Your task to perform on an android device: Open accessibility settings Image 0: 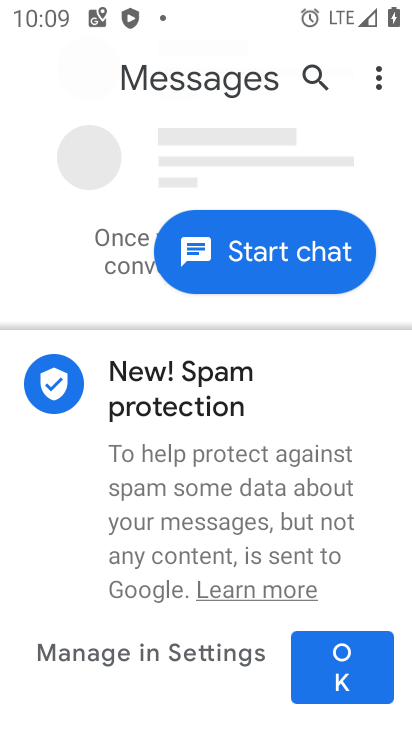
Step 0: press home button
Your task to perform on an android device: Open accessibility settings Image 1: 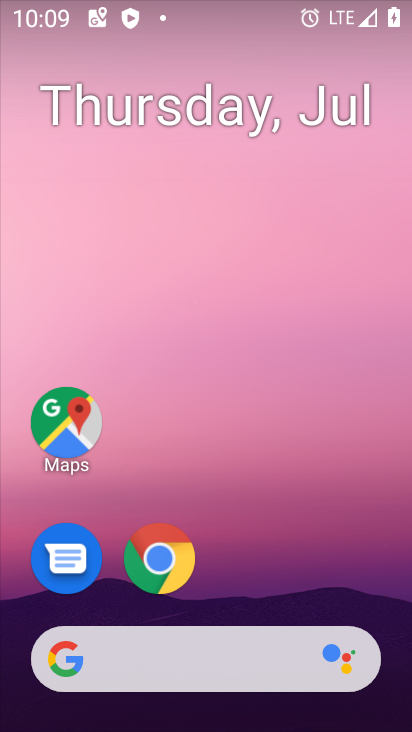
Step 1: drag from (348, 568) to (351, 134)
Your task to perform on an android device: Open accessibility settings Image 2: 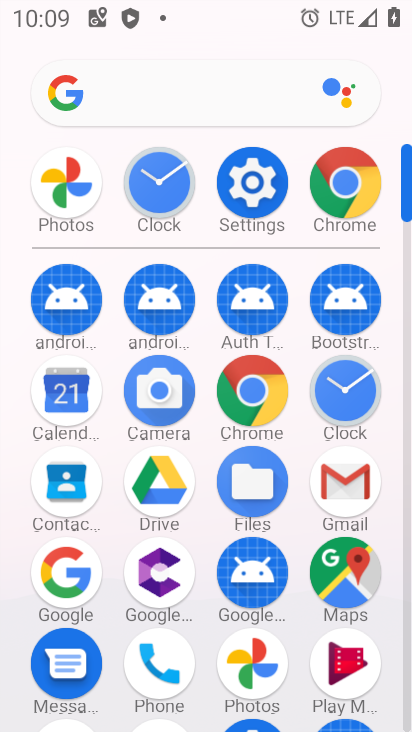
Step 2: click (262, 187)
Your task to perform on an android device: Open accessibility settings Image 3: 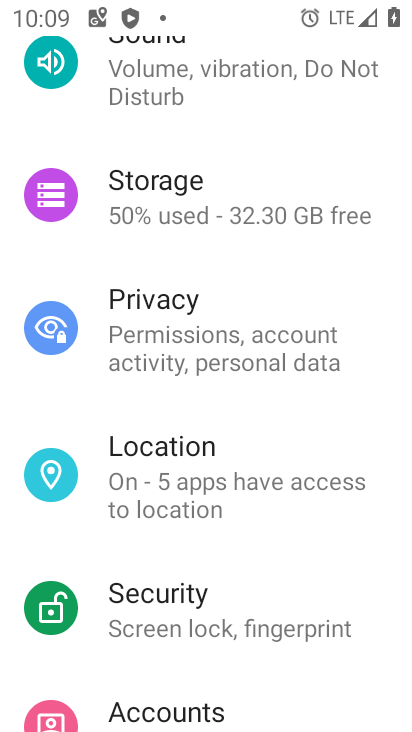
Step 3: drag from (370, 545) to (358, 434)
Your task to perform on an android device: Open accessibility settings Image 4: 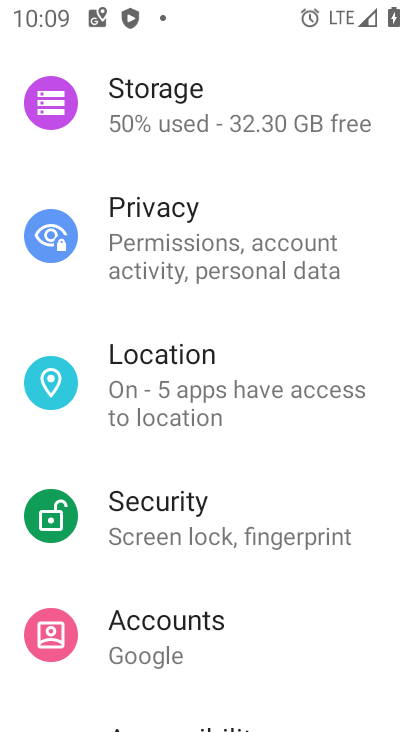
Step 4: drag from (339, 554) to (341, 409)
Your task to perform on an android device: Open accessibility settings Image 5: 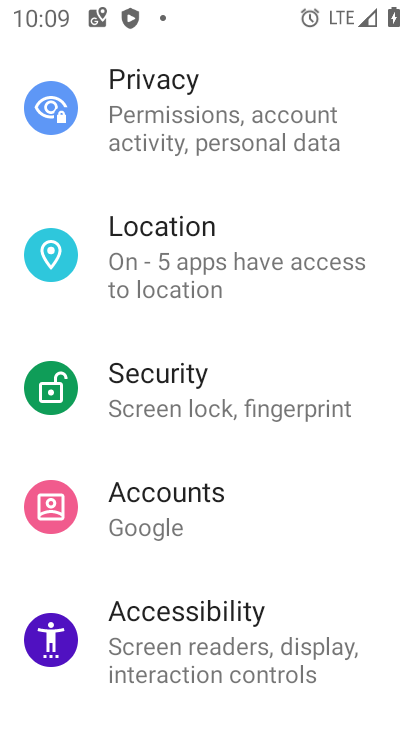
Step 5: drag from (330, 524) to (356, 358)
Your task to perform on an android device: Open accessibility settings Image 6: 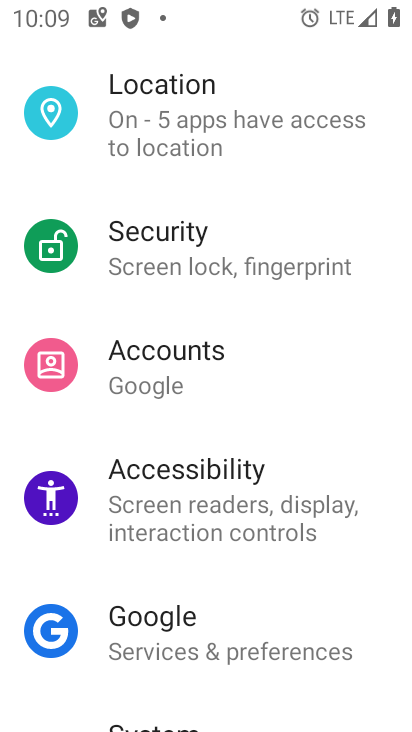
Step 6: drag from (356, 516) to (366, 412)
Your task to perform on an android device: Open accessibility settings Image 7: 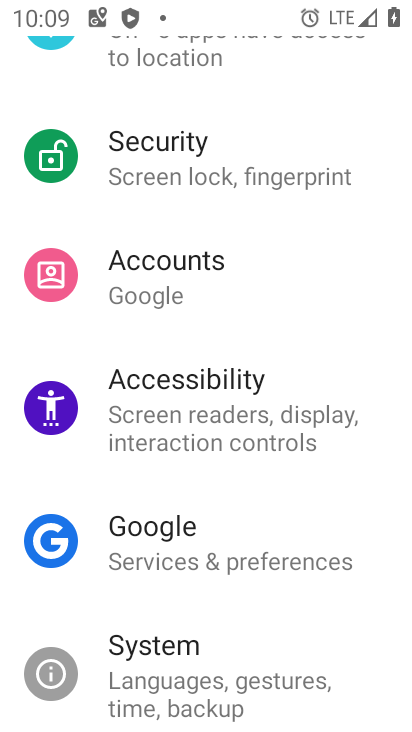
Step 7: drag from (368, 519) to (366, 390)
Your task to perform on an android device: Open accessibility settings Image 8: 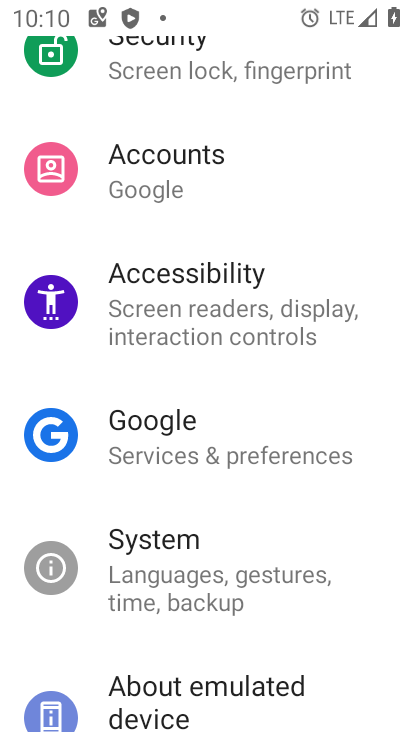
Step 8: drag from (359, 486) to (359, 389)
Your task to perform on an android device: Open accessibility settings Image 9: 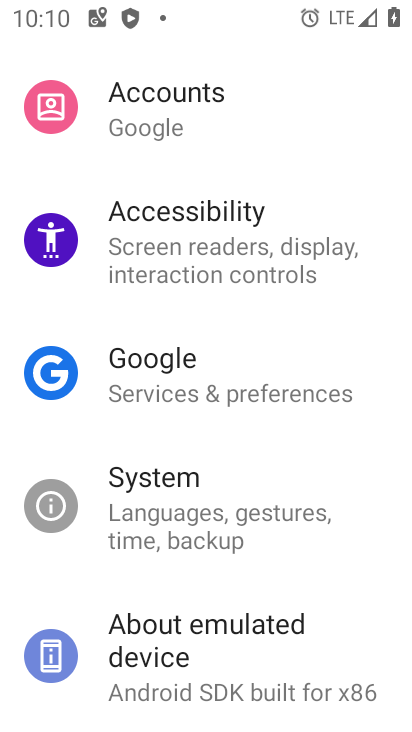
Step 9: drag from (365, 477) to (361, 369)
Your task to perform on an android device: Open accessibility settings Image 10: 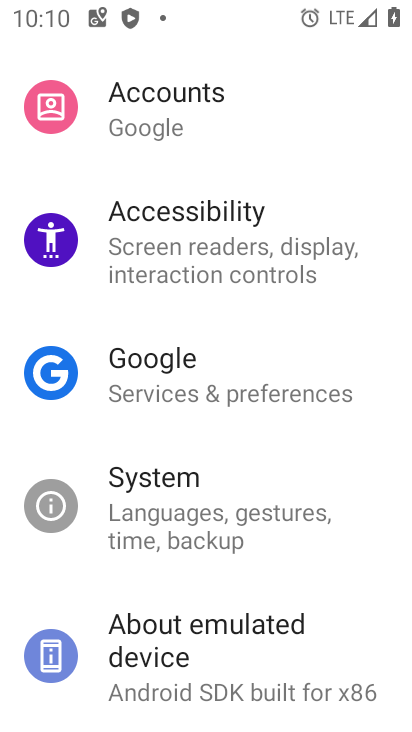
Step 10: click (325, 238)
Your task to perform on an android device: Open accessibility settings Image 11: 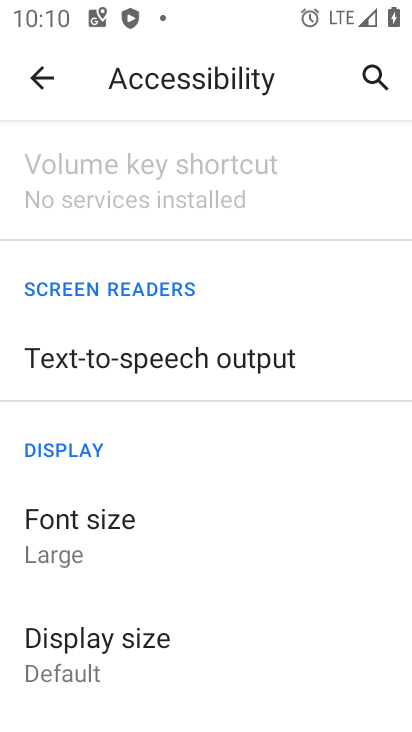
Step 11: task complete